Your task to perform on an android device: Go to ESPN.com Image 0: 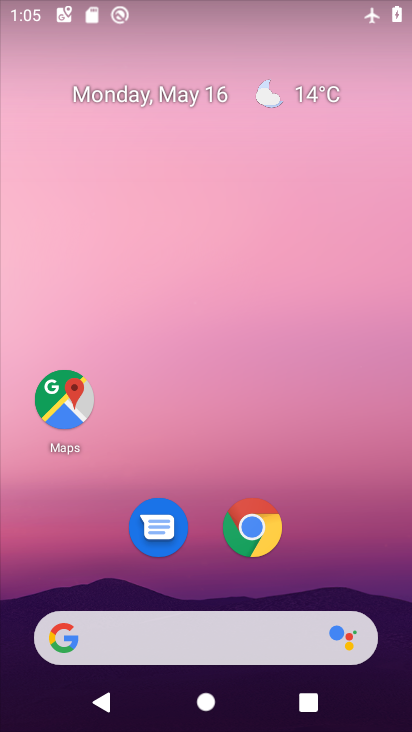
Step 0: click (258, 524)
Your task to perform on an android device: Go to ESPN.com Image 1: 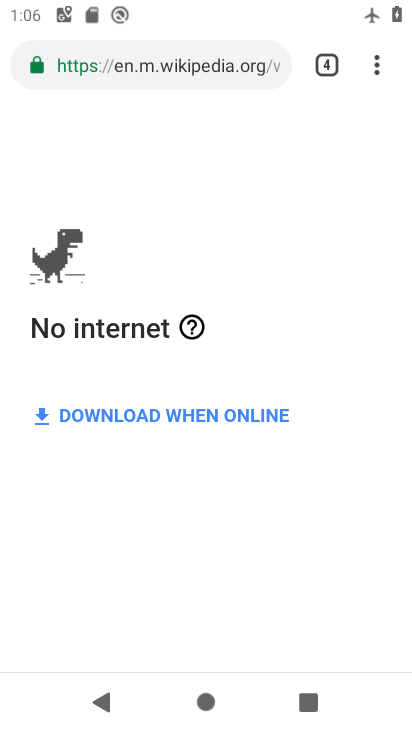
Step 1: click (161, 67)
Your task to perform on an android device: Go to ESPN.com Image 2: 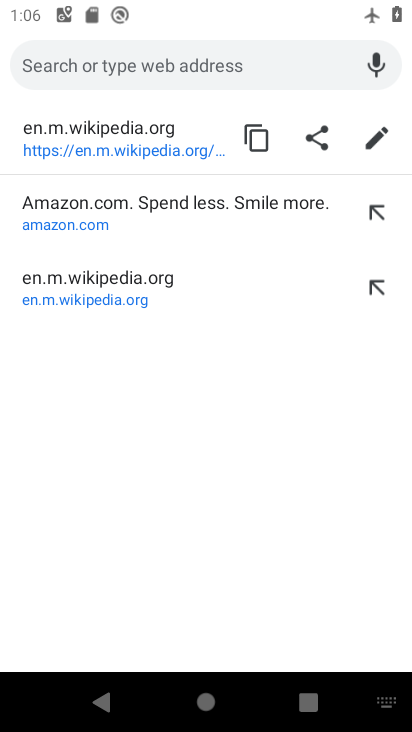
Step 2: type "ESPN.com"
Your task to perform on an android device: Go to ESPN.com Image 3: 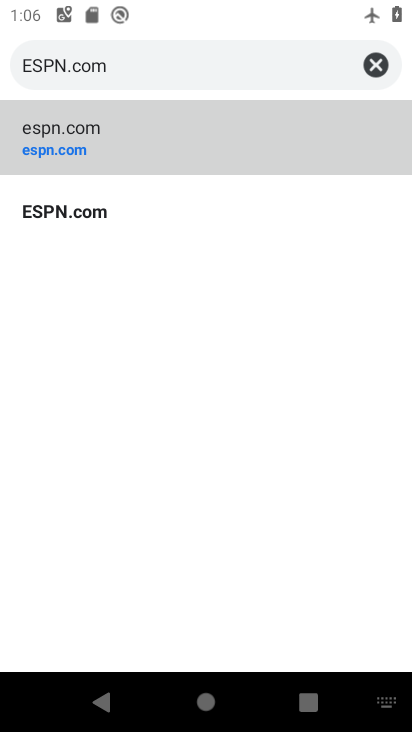
Step 3: drag from (308, 16) to (284, 630)
Your task to perform on an android device: Go to ESPN.com Image 4: 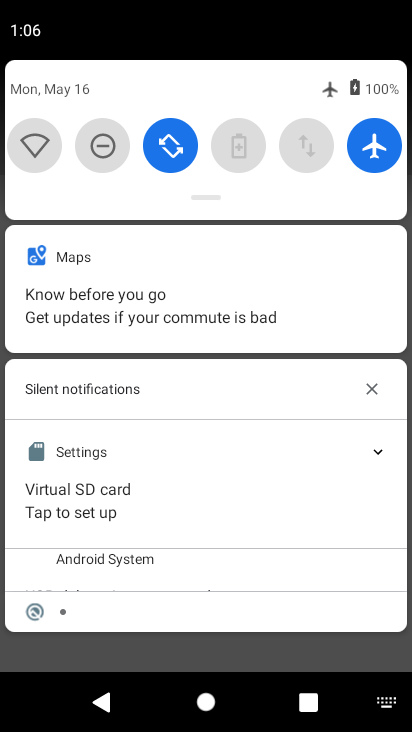
Step 4: click (370, 138)
Your task to perform on an android device: Go to ESPN.com Image 5: 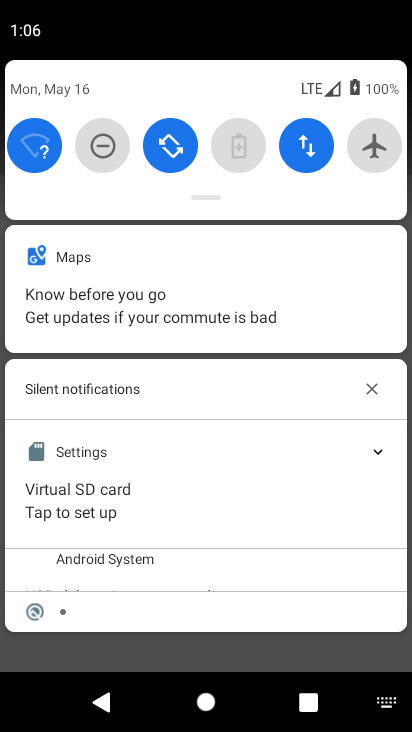
Step 5: drag from (279, 644) to (331, 8)
Your task to perform on an android device: Go to ESPN.com Image 6: 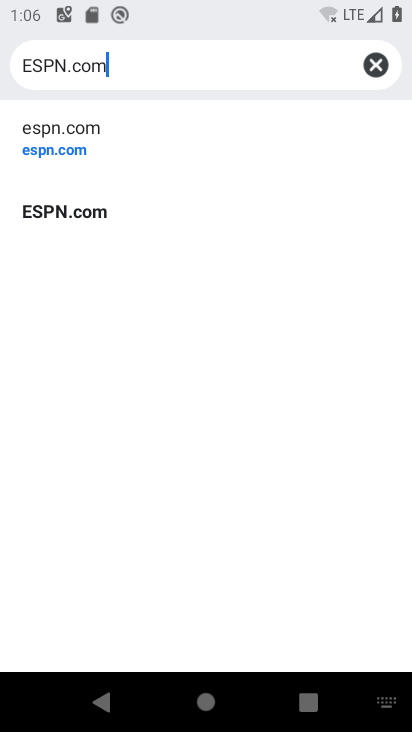
Step 6: click (67, 146)
Your task to perform on an android device: Go to ESPN.com Image 7: 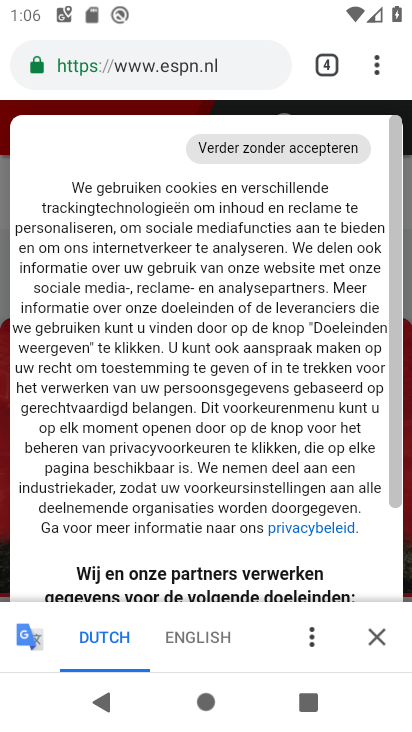
Step 7: task complete